Your task to perform on an android device: turn off wifi Image 0: 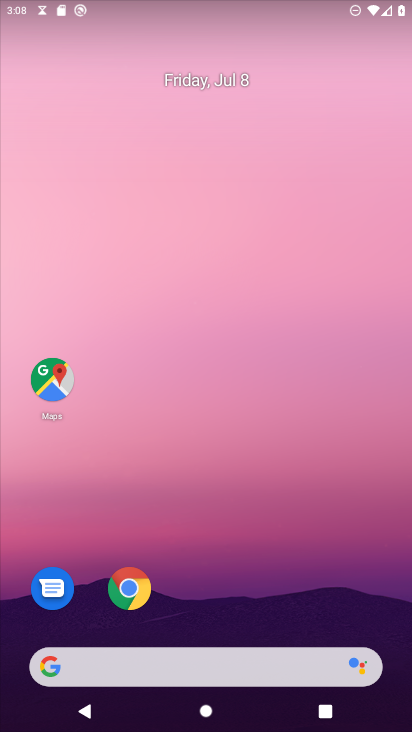
Step 0: drag from (179, 573) to (202, 220)
Your task to perform on an android device: turn off wifi Image 1: 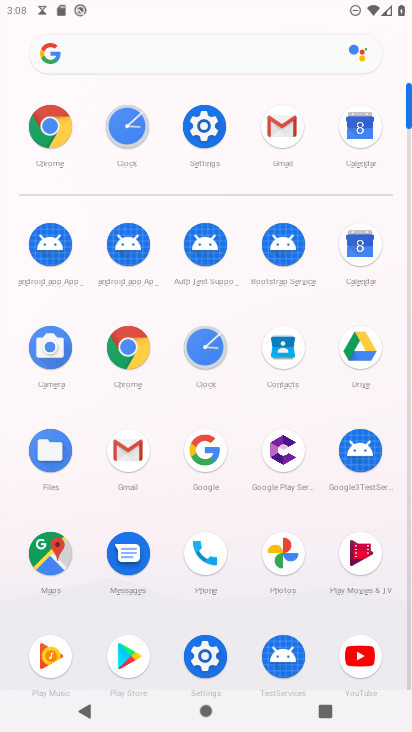
Step 1: click (205, 133)
Your task to perform on an android device: turn off wifi Image 2: 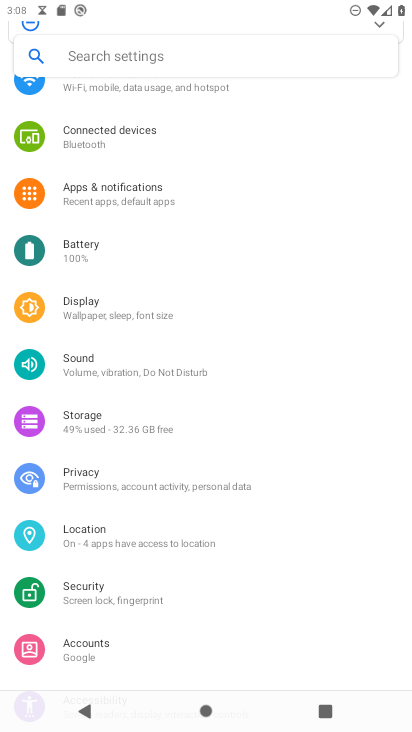
Step 2: click (159, 97)
Your task to perform on an android device: turn off wifi Image 3: 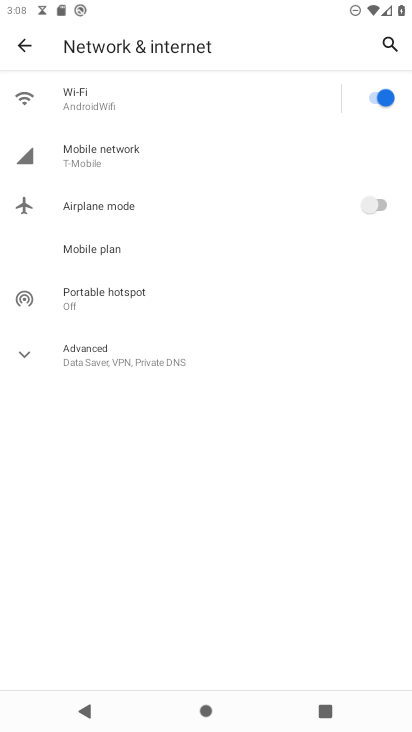
Step 3: click (374, 96)
Your task to perform on an android device: turn off wifi Image 4: 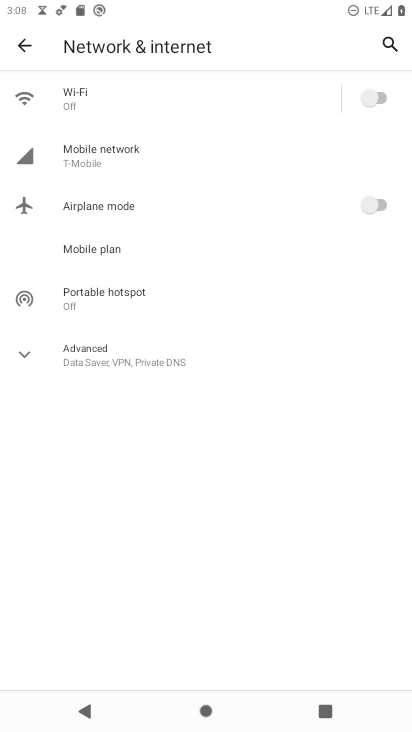
Step 4: task complete